Your task to perform on an android device: Toggle the flashlight Image 0: 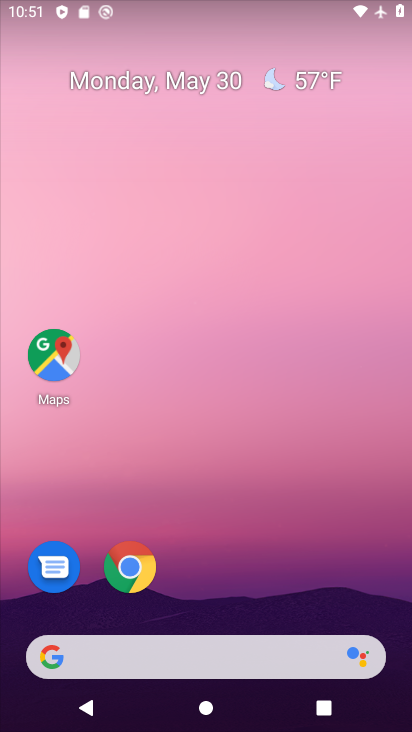
Step 0: drag from (205, 588) to (205, 184)
Your task to perform on an android device: Toggle the flashlight Image 1: 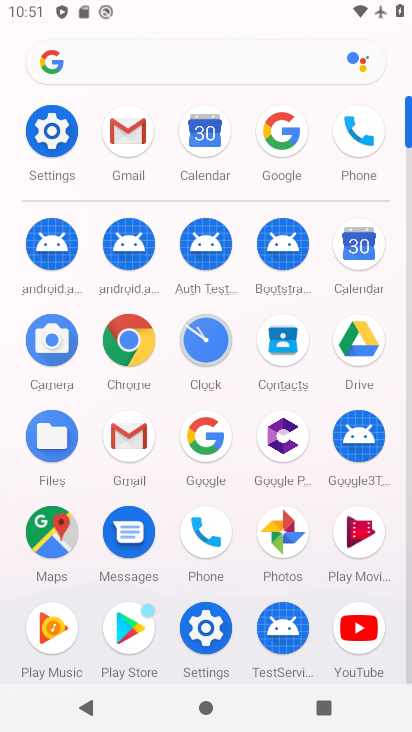
Step 1: click (51, 130)
Your task to perform on an android device: Toggle the flashlight Image 2: 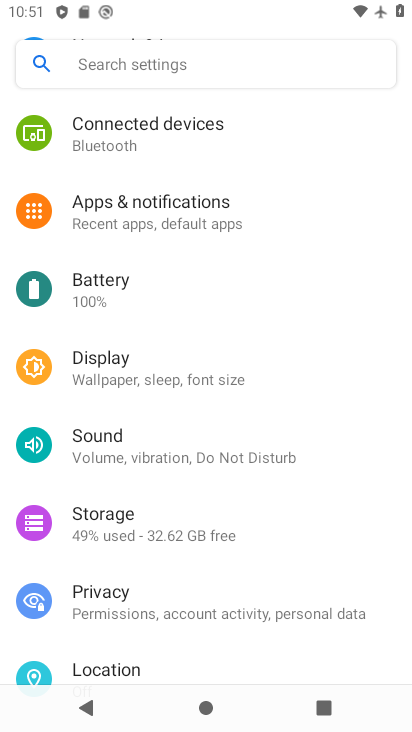
Step 2: task complete